Your task to perform on an android device: Go to privacy settings Image 0: 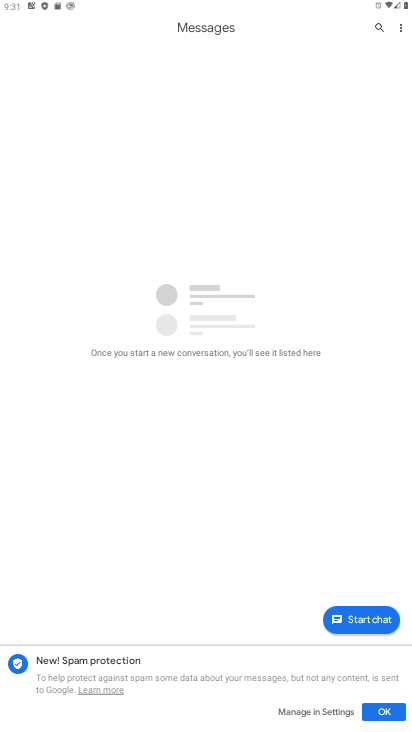
Step 0: press home button
Your task to perform on an android device: Go to privacy settings Image 1: 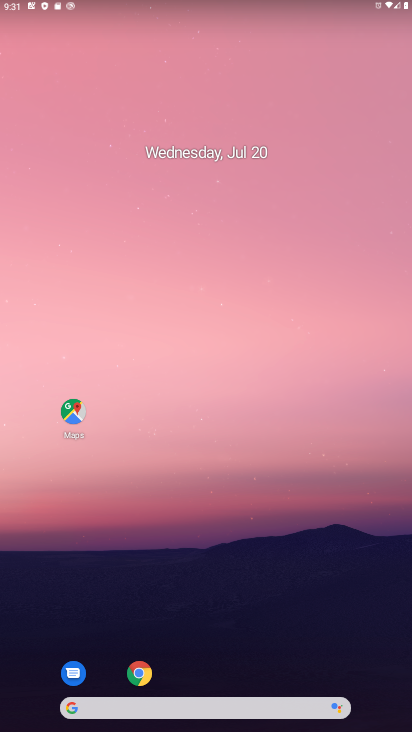
Step 1: drag from (224, 728) to (208, 243)
Your task to perform on an android device: Go to privacy settings Image 2: 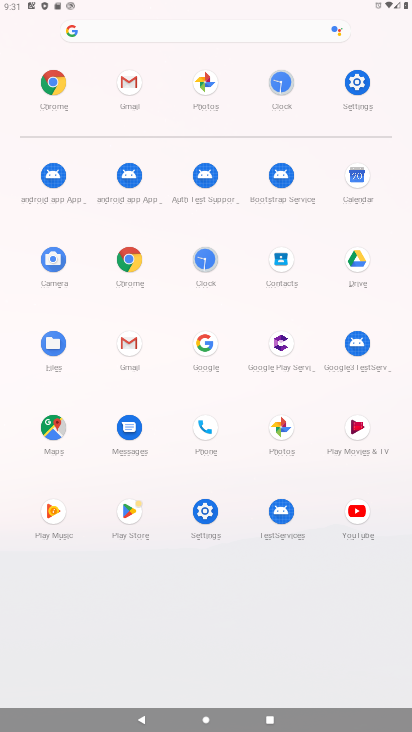
Step 2: click (365, 81)
Your task to perform on an android device: Go to privacy settings Image 3: 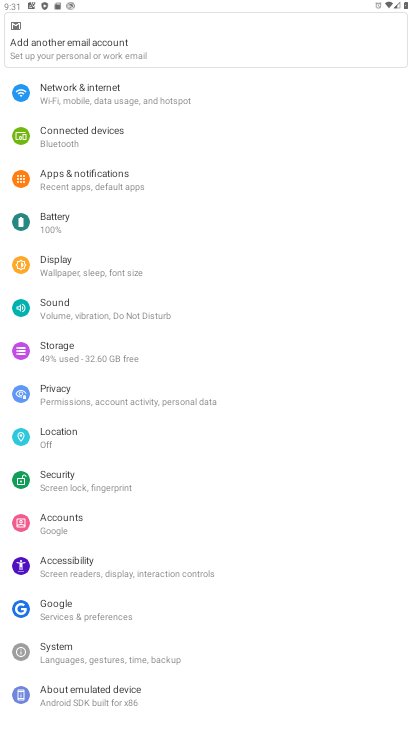
Step 3: click (51, 391)
Your task to perform on an android device: Go to privacy settings Image 4: 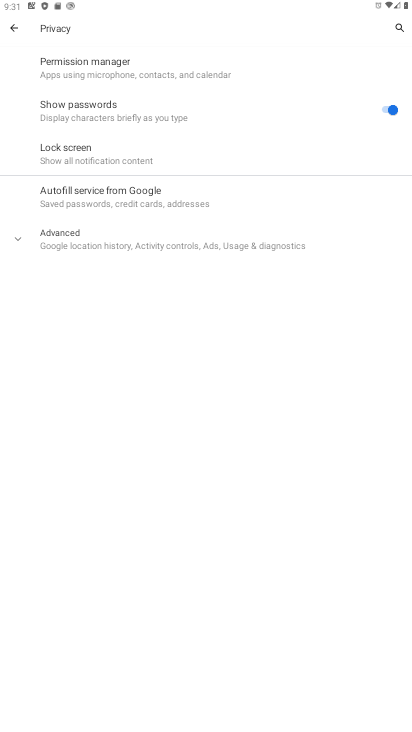
Step 4: task complete